Your task to perform on an android device: delete the emails in spam in the gmail app Image 0: 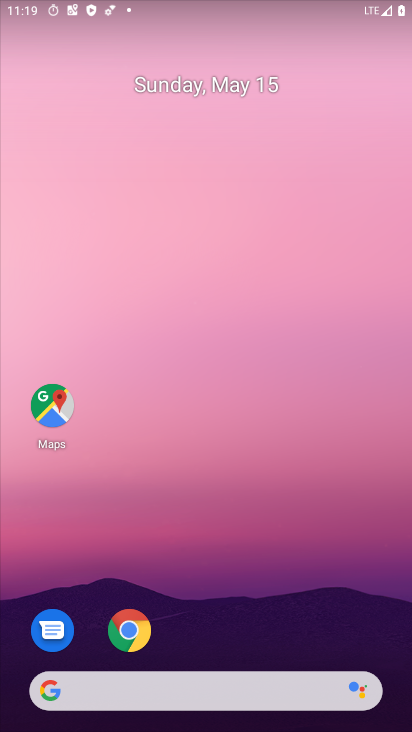
Step 0: drag from (236, 636) to (250, 118)
Your task to perform on an android device: delete the emails in spam in the gmail app Image 1: 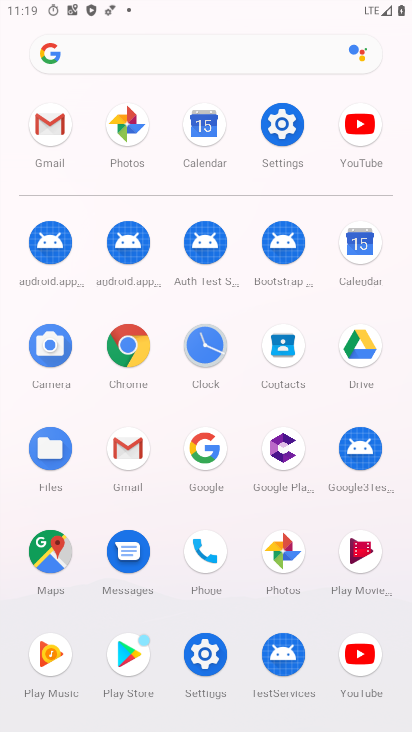
Step 1: click (38, 147)
Your task to perform on an android device: delete the emails in spam in the gmail app Image 2: 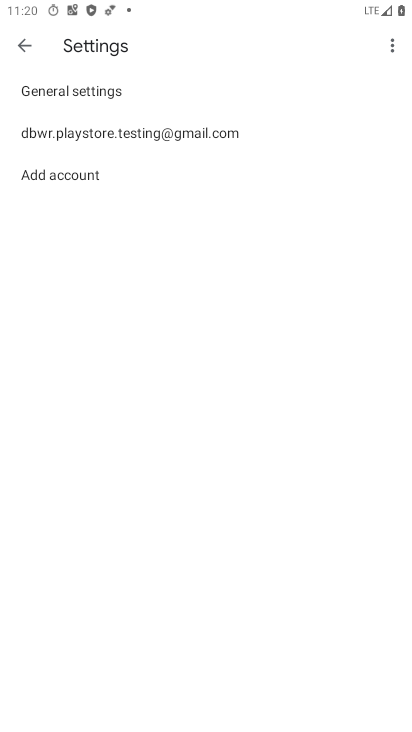
Step 2: click (24, 47)
Your task to perform on an android device: delete the emails in spam in the gmail app Image 3: 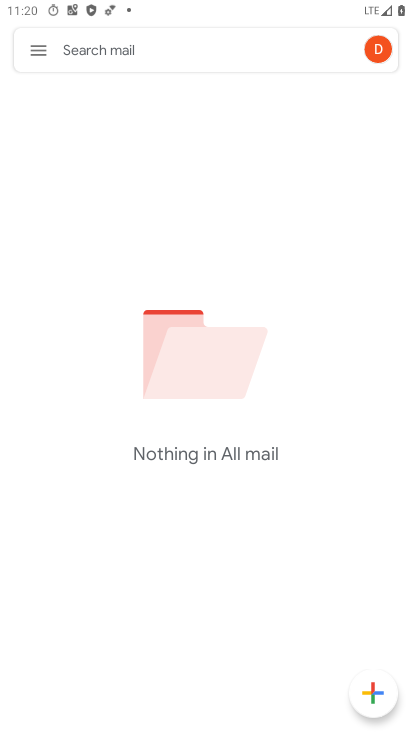
Step 3: click (43, 49)
Your task to perform on an android device: delete the emails in spam in the gmail app Image 4: 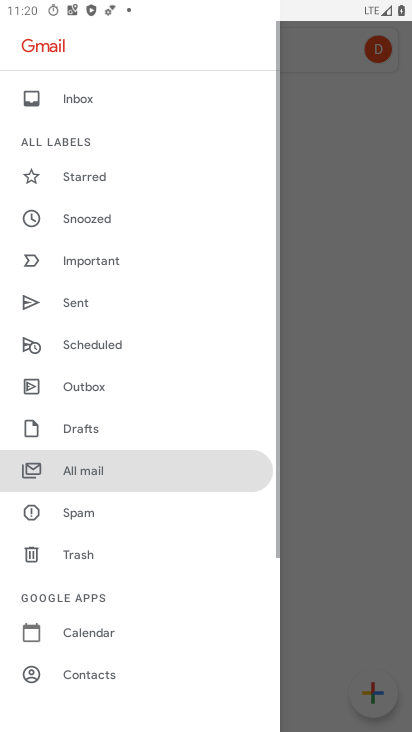
Step 4: click (70, 511)
Your task to perform on an android device: delete the emails in spam in the gmail app Image 5: 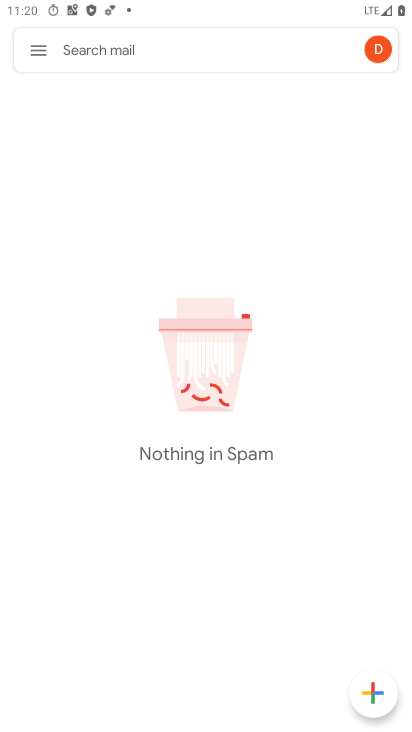
Step 5: task complete